Your task to perform on an android device: Go to wifi settings Image 0: 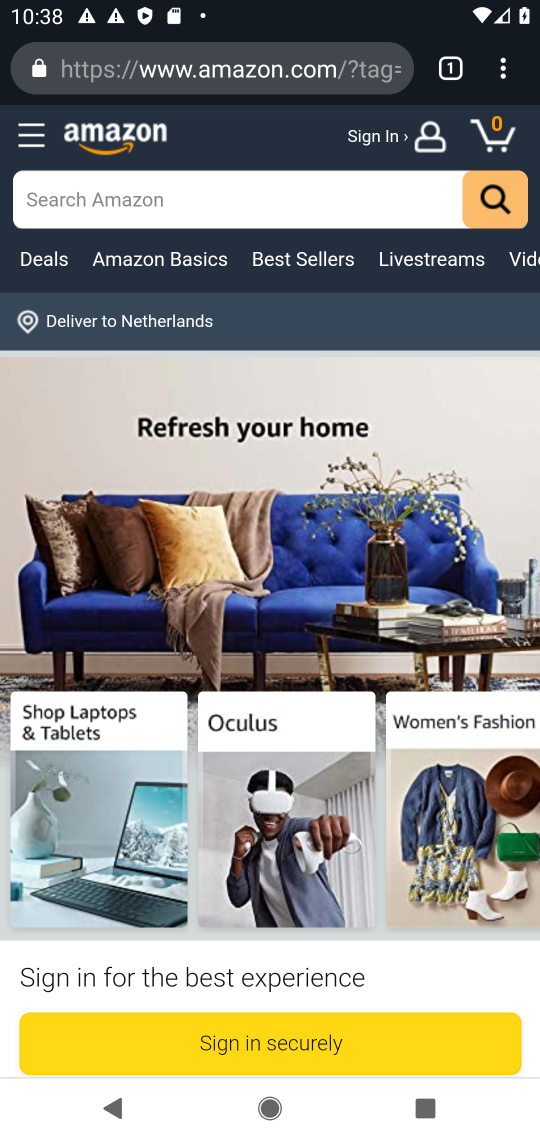
Step 0: press back button
Your task to perform on an android device: Go to wifi settings Image 1: 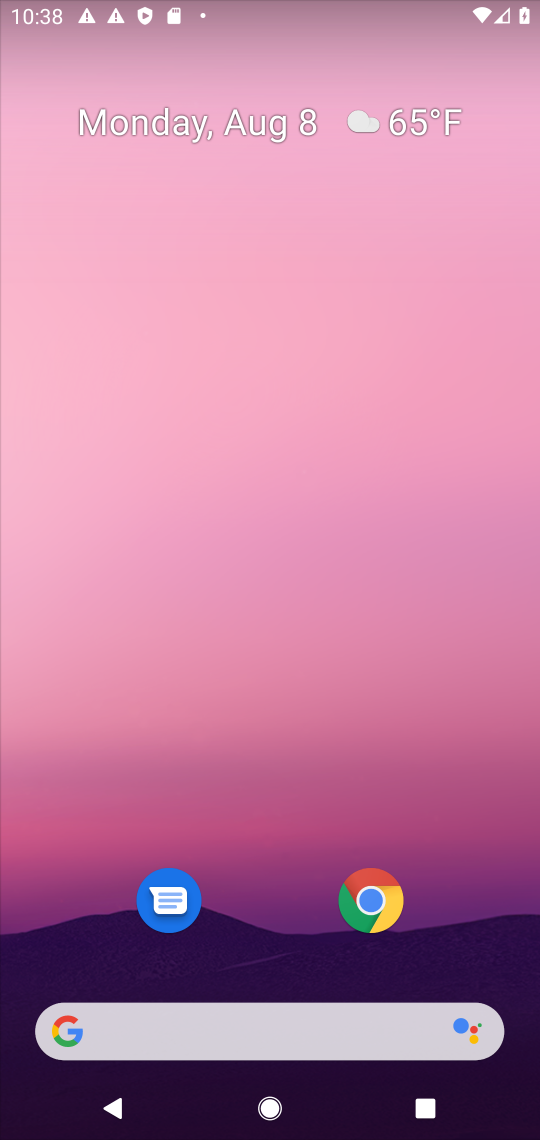
Step 1: click (250, 397)
Your task to perform on an android device: Go to wifi settings Image 2: 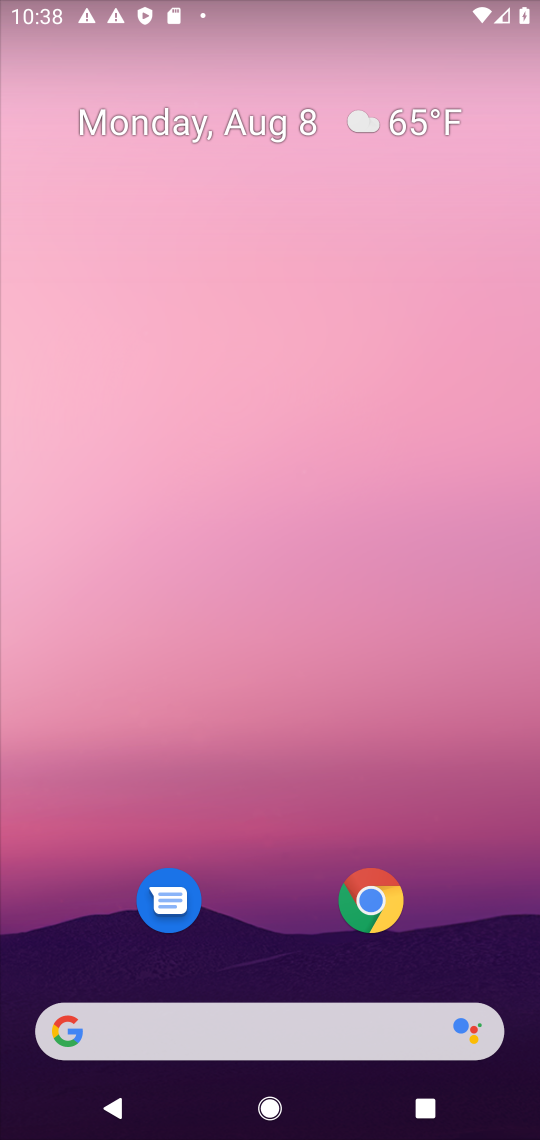
Step 2: drag from (256, 915) to (353, 265)
Your task to perform on an android device: Go to wifi settings Image 3: 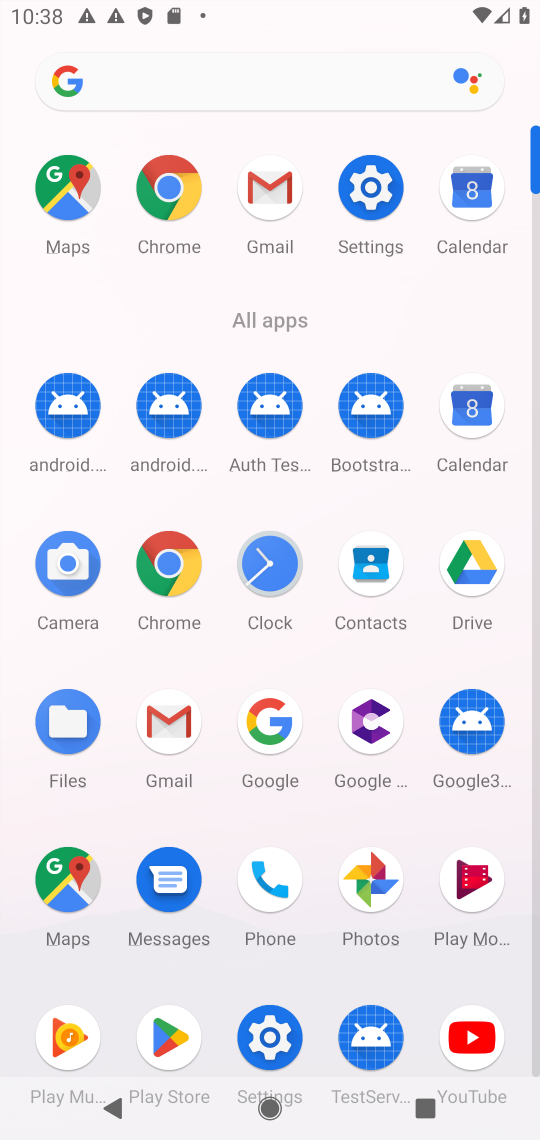
Step 3: click (373, 185)
Your task to perform on an android device: Go to wifi settings Image 4: 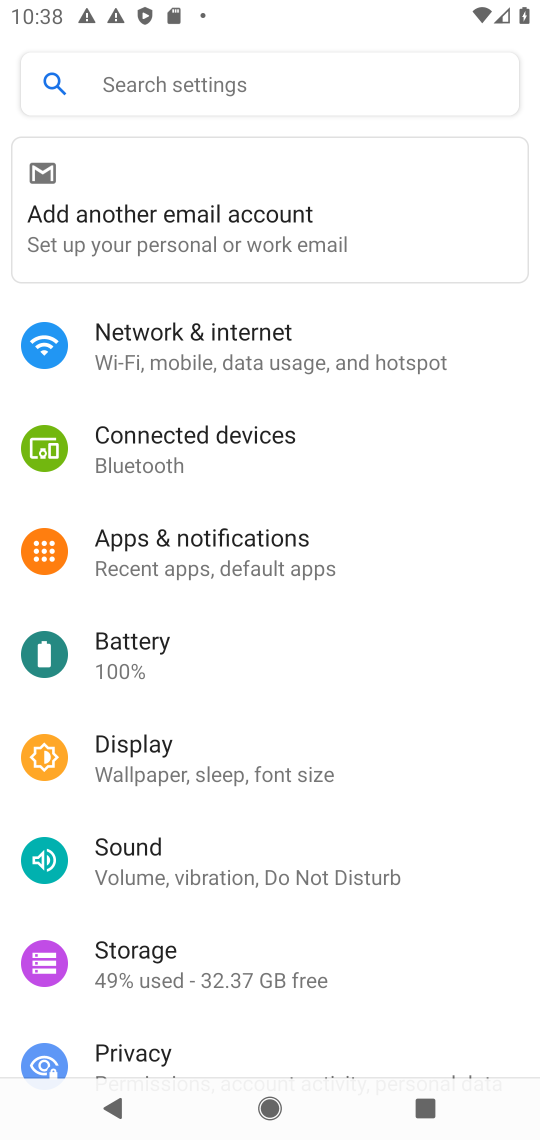
Step 4: click (203, 371)
Your task to perform on an android device: Go to wifi settings Image 5: 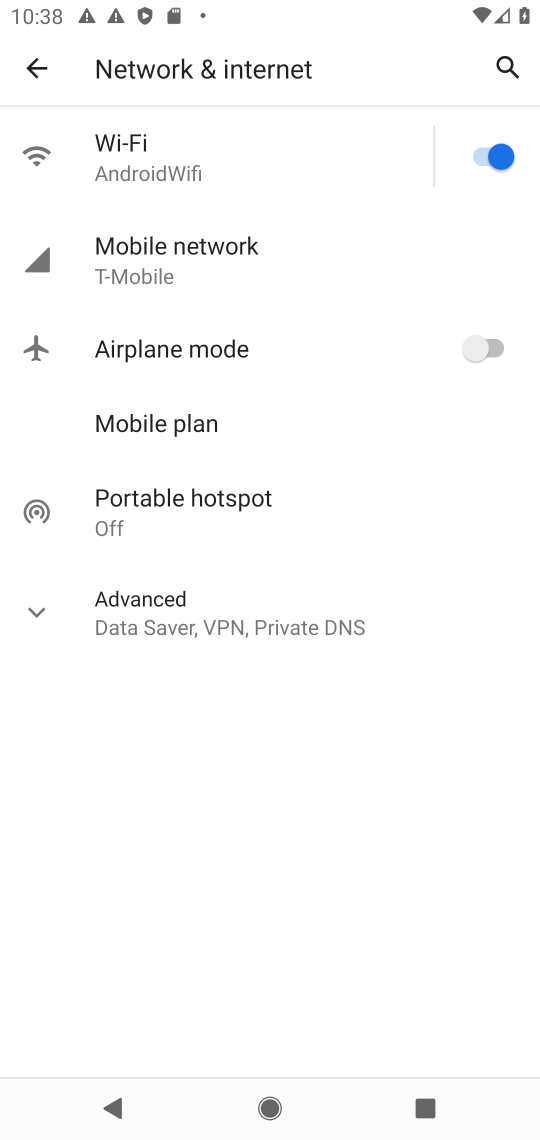
Step 5: click (162, 165)
Your task to perform on an android device: Go to wifi settings Image 6: 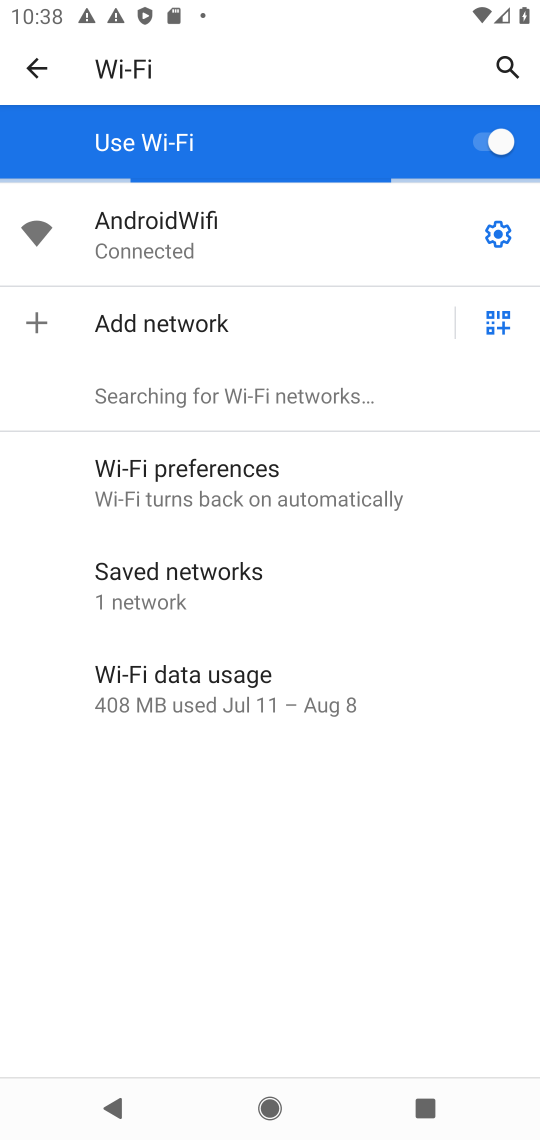
Step 6: task complete